Your task to perform on an android device: change text size in settings app Image 0: 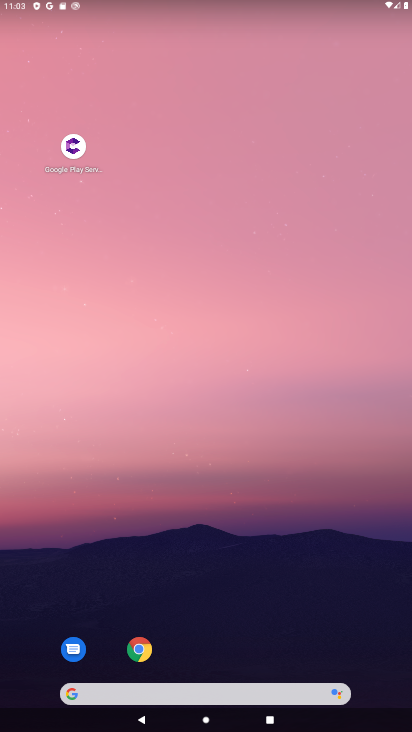
Step 0: drag from (223, 667) to (215, 210)
Your task to perform on an android device: change text size in settings app Image 1: 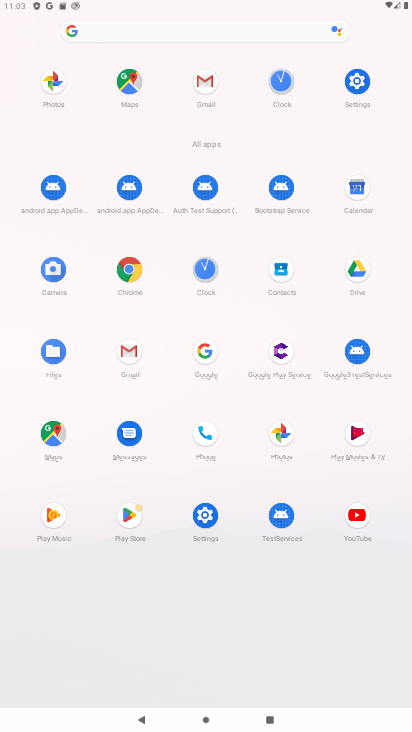
Step 1: click (219, 519)
Your task to perform on an android device: change text size in settings app Image 2: 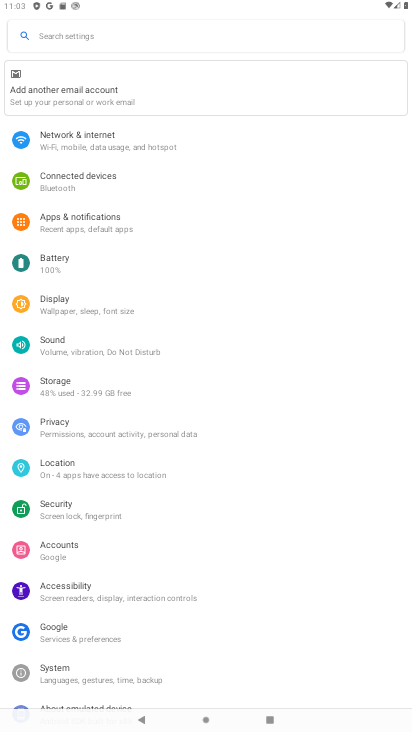
Step 2: click (119, 305)
Your task to perform on an android device: change text size in settings app Image 3: 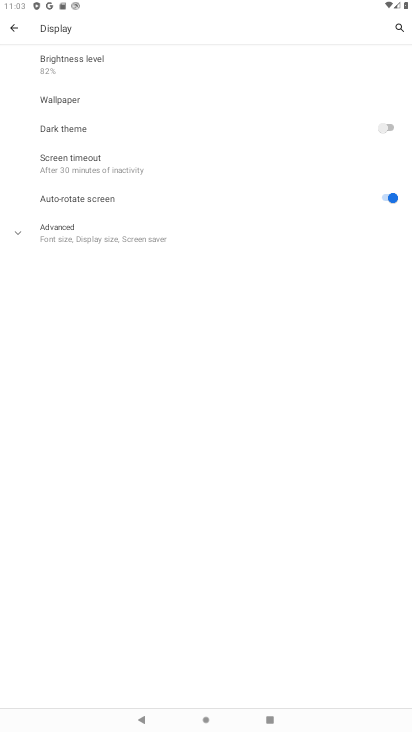
Step 3: click (113, 234)
Your task to perform on an android device: change text size in settings app Image 4: 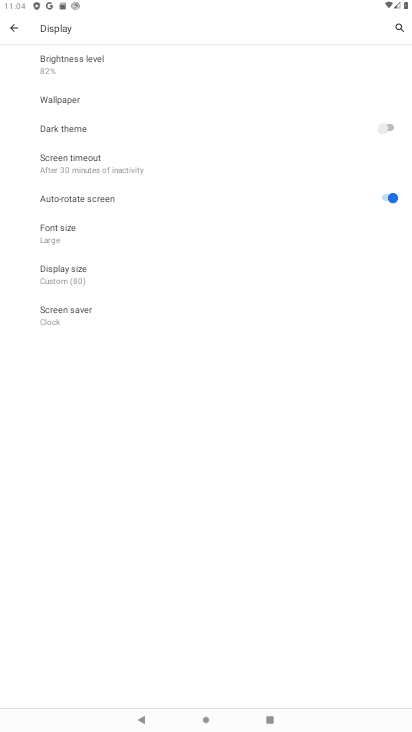
Step 4: click (55, 230)
Your task to perform on an android device: change text size in settings app Image 5: 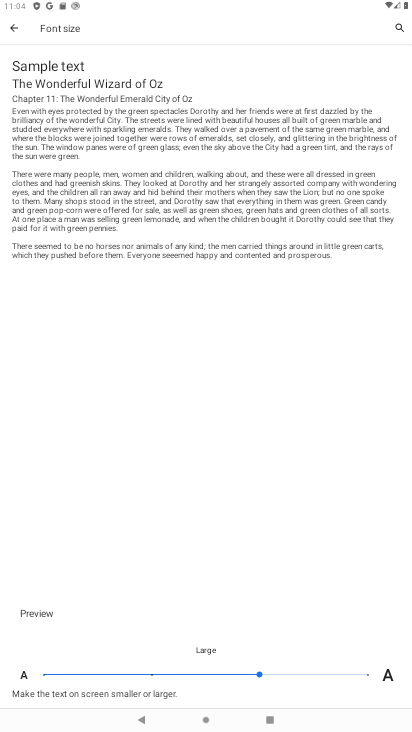
Step 5: click (368, 676)
Your task to perform on an android device: change text size in settings app Image 6: 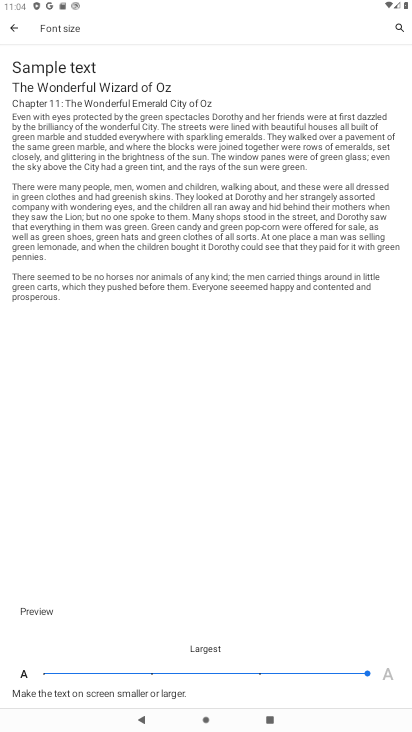
Step 6: task complete